Your task to perform on an android device: Open calendar and show me the third week of next month Image 0: 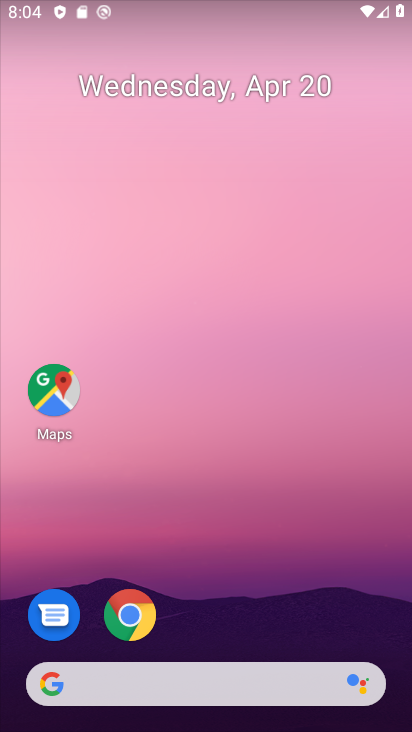
Step 0: click (356, 88)
Your task to perform on an android device: Open calendar and show me the third week of next month Image 1: 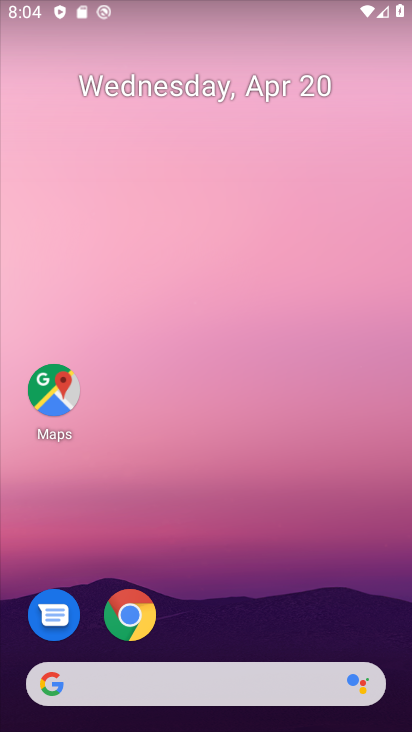
Step 1: drag from (235, 619) to (290, 22)
Your task to perform on an android device: Open calendar and show me the third week of next month Image 2: 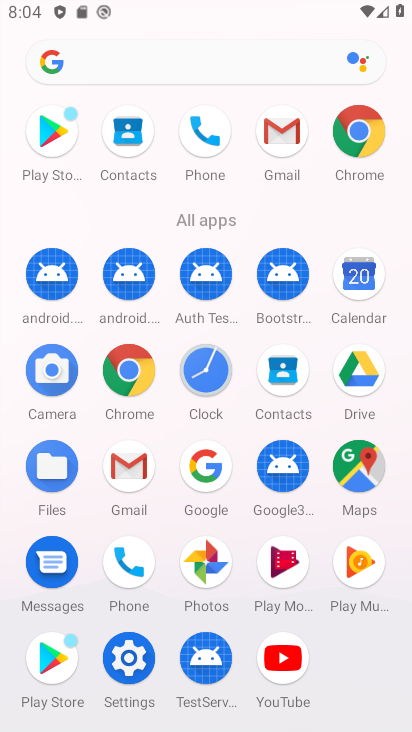
Step 2: click (365, 276)
Your task to perform on an android device: Open calendar and show me the third week of next month Image 3: 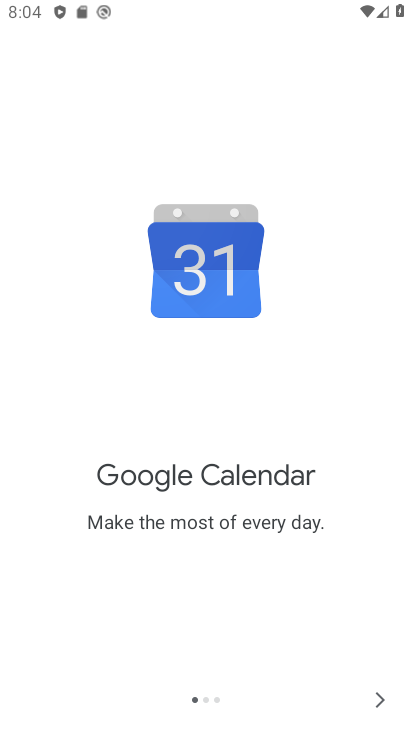
Step 3: click (381, 701)
Your task to perform on an android device: Open calendar and show me the third week of next month Image 4: 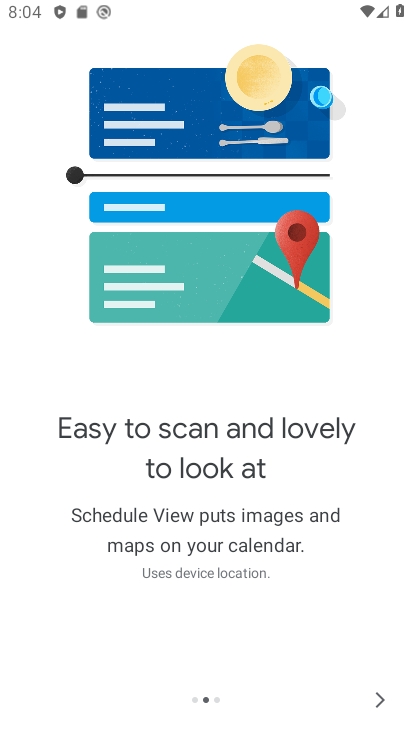
Step 4: click (381, 701)
Your task to perform on an android device: Open calendar and show me the third week of next month Image 5: 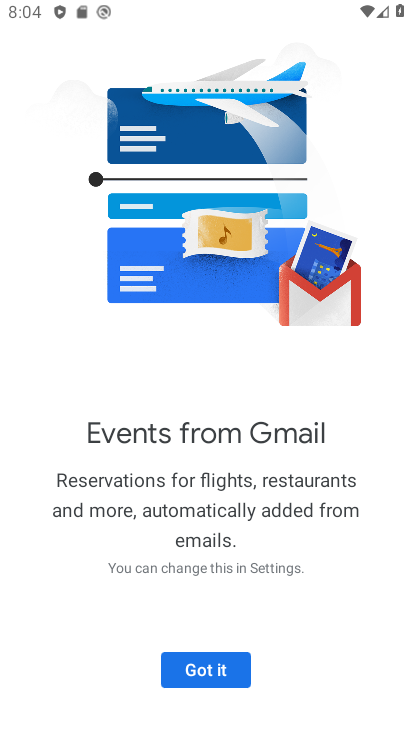
Step 5: click (214, 671)
Your task to perform on an android device: Open calendar and show me the third week of next month Image 6: 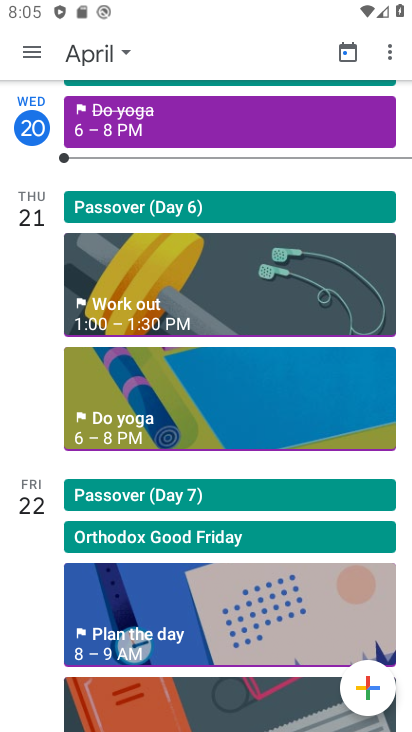
Step 6: click (128, 55)
Your task to perform on an android device: Open calendar and show me the third week of next month Image 7: 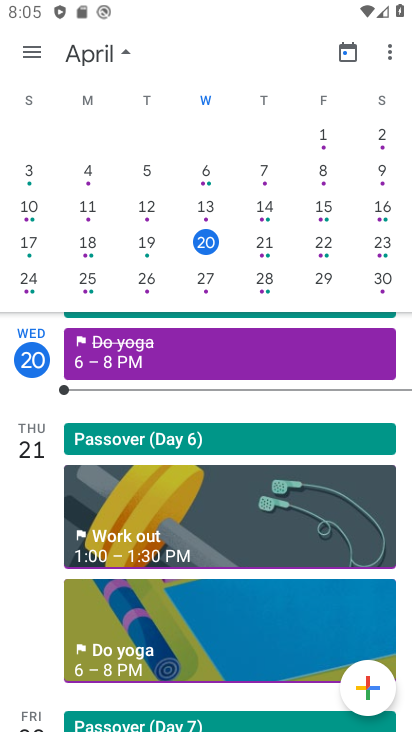
Step 7: drag from (276, 234) to (0, 207)
Your task to perform on an android device: Open calendar and show me the third week of next month Image 8: 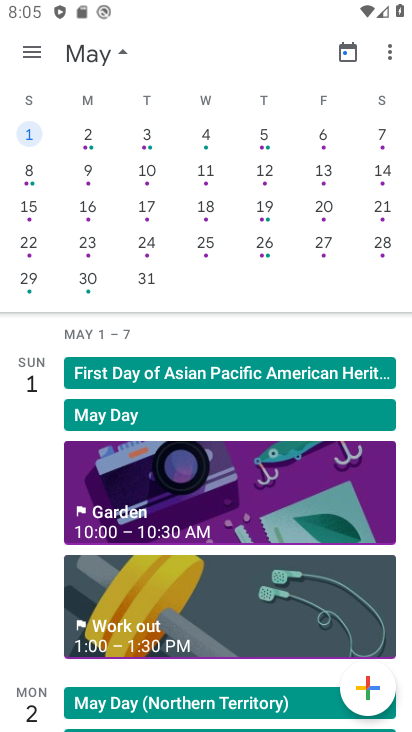
Step 8: click (92, 213)
Your task to perform on an android device: Open calendar and show me the third week of next month Image 9: 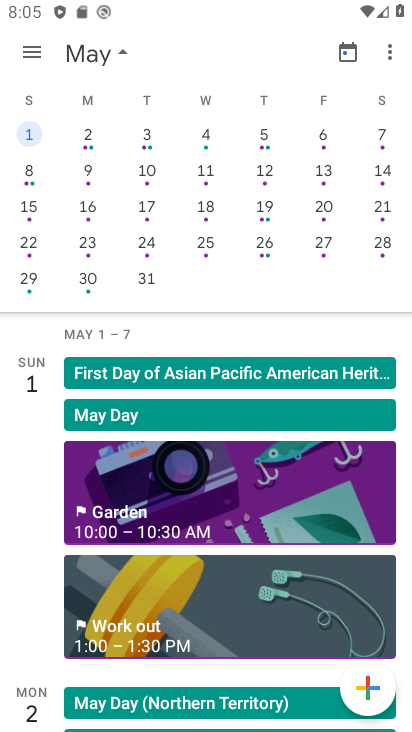
Step 9: click (92, 206)
Your task to perform on an android device: Open calendar and show me the third week of next month Image 10: 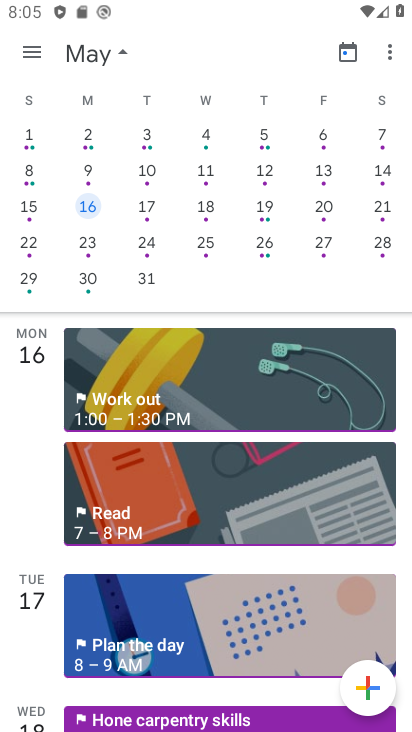
Step 10: click (29, 53)
Your task to perform on an android device: Open calendar and show me the third week of next month Image 11: 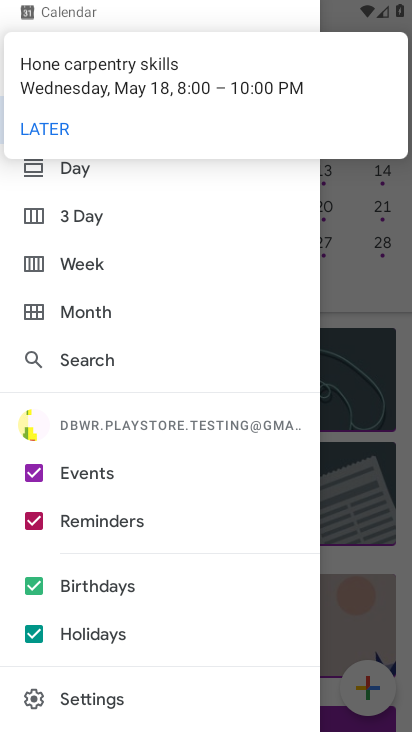
Step 11: click (88, 264)
Your task to perform on an android device: Open calendar and show me the third week of next month Image 12: 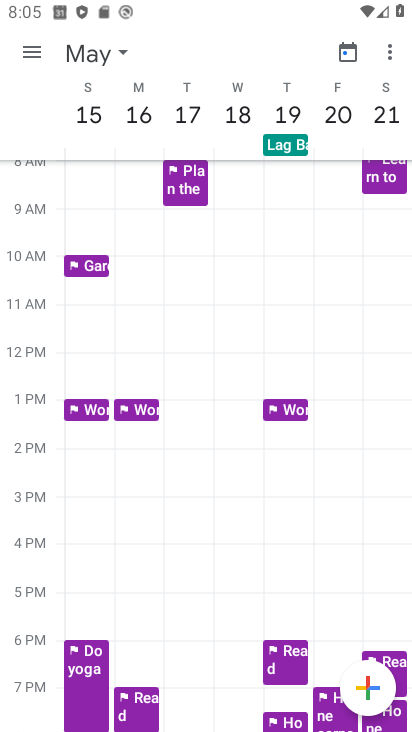
Step 12: task complete